Your task to perform on an android device: Open the map Image 0: 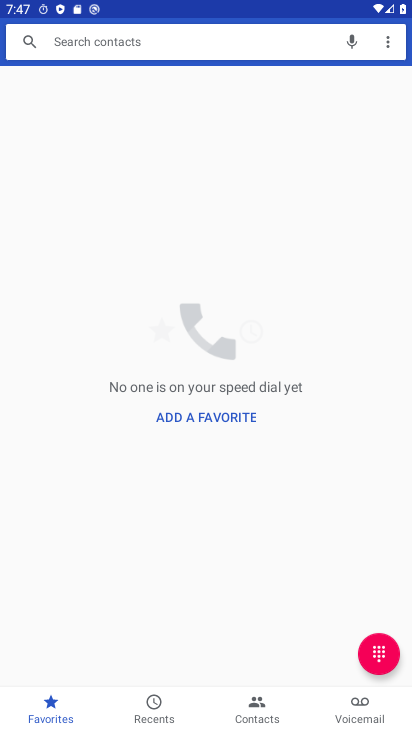
Step 0: press home button
Your task to perform on an android device: Open the map Image 1: 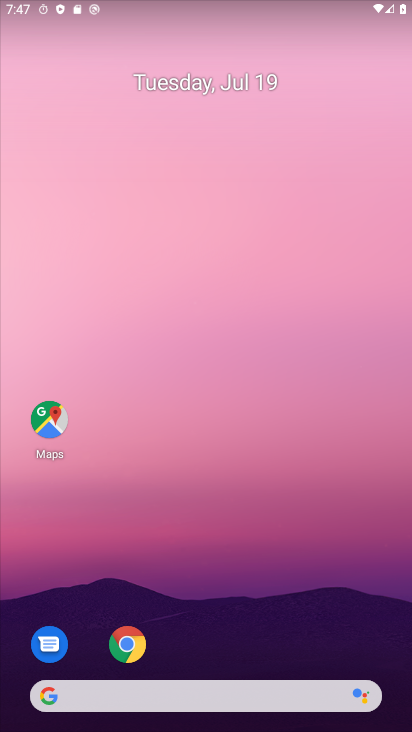
Step 1: click (37, 421)
Your task to perform on an android device: Open the map Image 2: 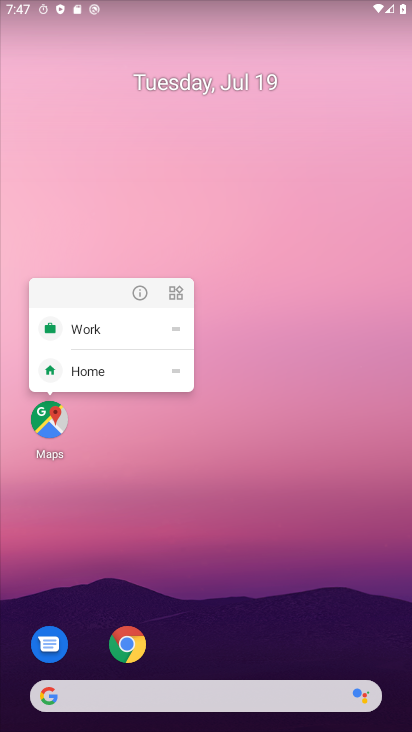
Step 2: click (57, 432)
Your task to perform on an android device: Open the map Image 3: 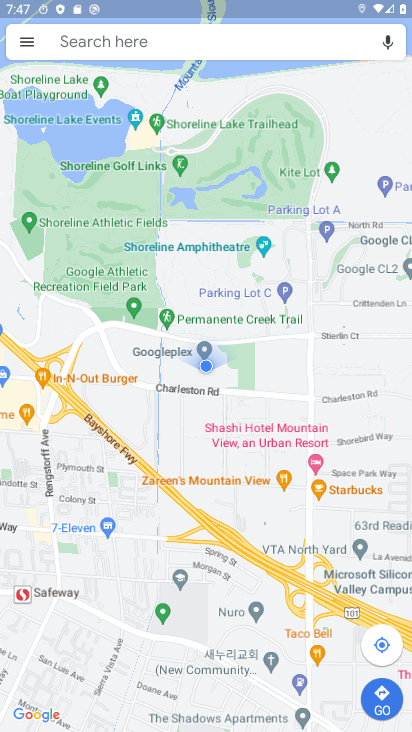
Step 3: task complete